Your task to perform on an android device: turn on showing notifications on the lock screen Image 0: 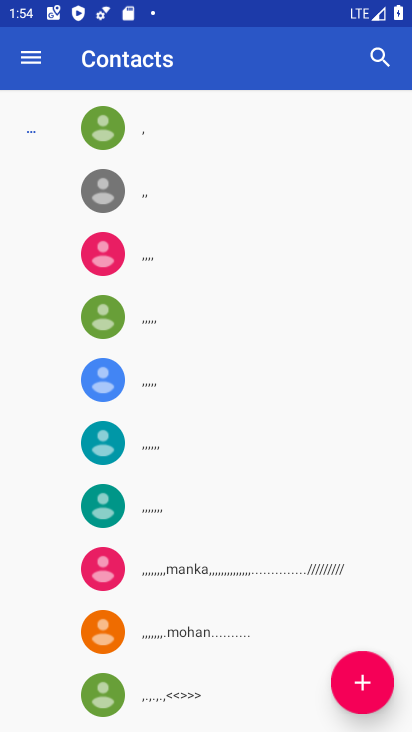
Step 0: press home button
Your task to perform on an android device: turn on showing notifications on the lock screen Image 1: 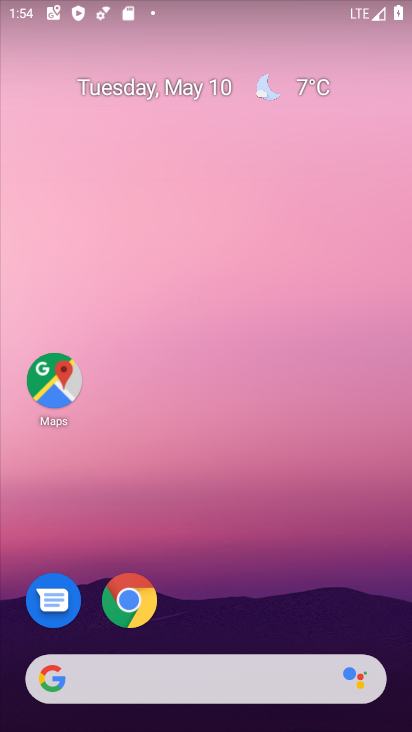
Step 1: drag from (121, 675) to (248, 107)
Your task to perform on an android device: turn on showing notifications on the lock screen Image 2: 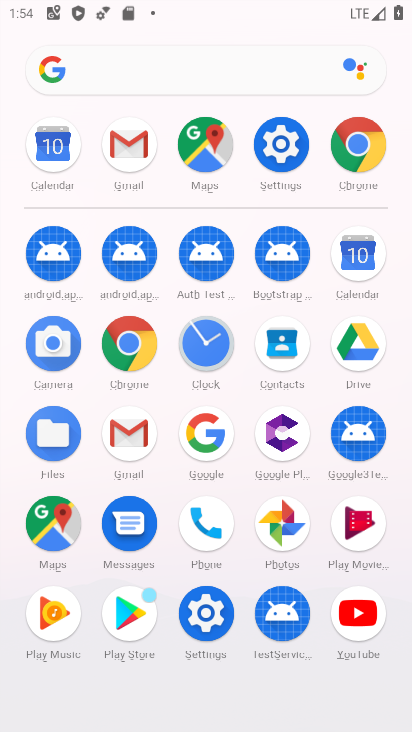
Step 2: click (269, 153)
Your task to perform on an android device: turn on showing notifications on the lock screen Image 3: 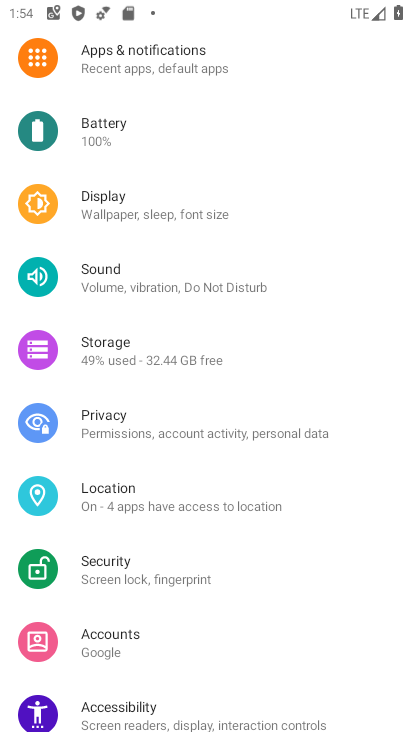
Step 3: click (162, 59)
Your task to perform on an android device: turn on showing notifications on the lock screen Image 4: 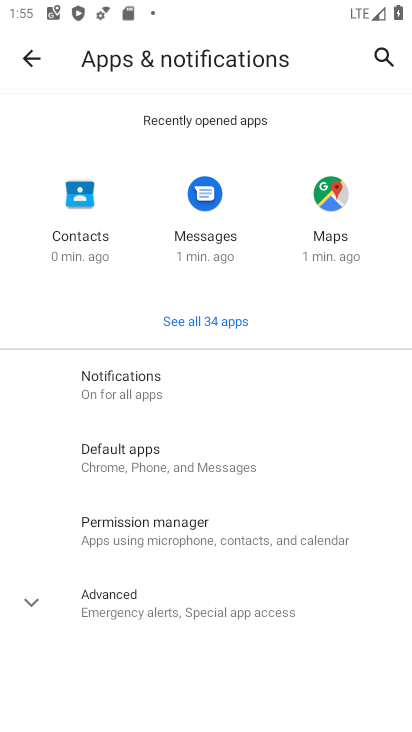
Step 4: click (147, 388)
Your task to perform on an android device: turn on showing notifications on the lock screen Image 5: 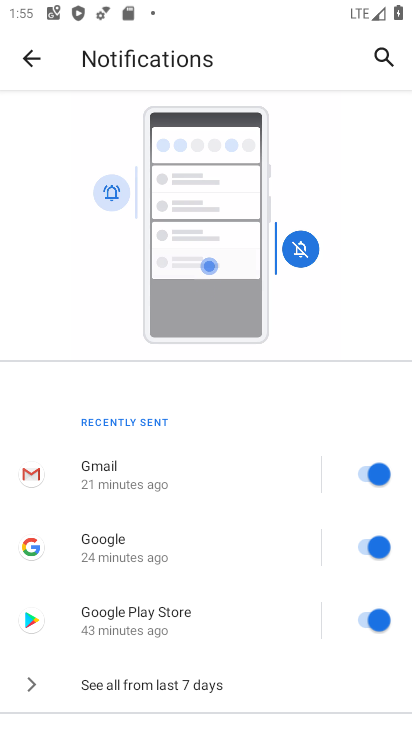
Step 5: drag from (229, 640) to (330, 257)
Your task to perform on an android device: turn on showing notifications on the lock screen Image 6: 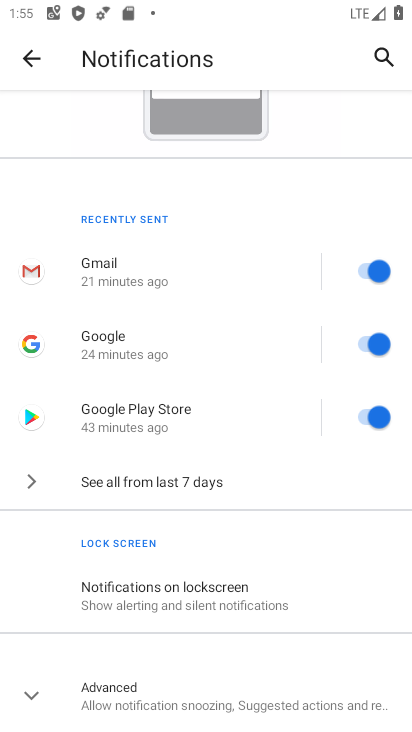
Step 6: click (195, 600)
Your task to perform on an android device: turn on showing notifications on the lock screen Image 7: 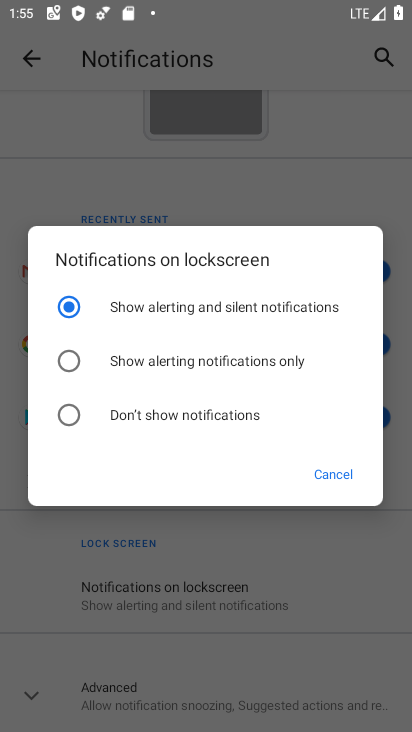
Step 7: task complete